Your task to perform on an android device: Open Google Chrome and open the bookmarks view Image 0: 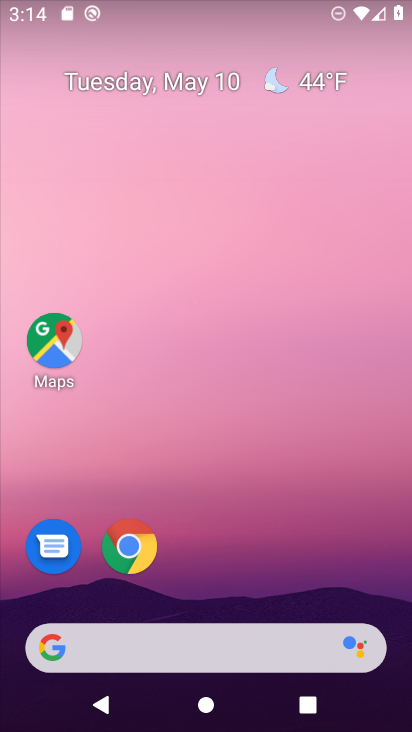
Step 0: drag from (272, 466) to (276, 123)
Your task to perform on an android device: Open Google Chrome and open the bookmarks view Image 1: 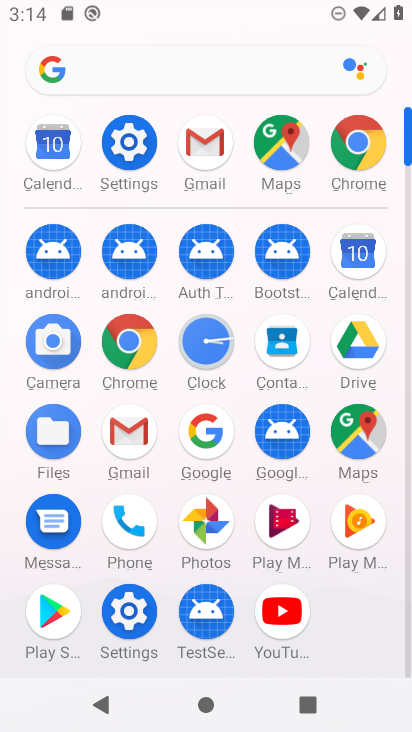
Step 1: click (367, 159)
Your task to perform on an android device: Open Google Chrome and open the bookmarks view Image 2: 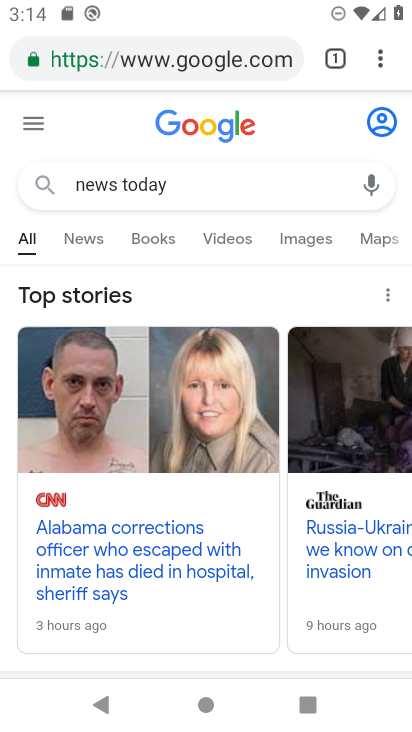
Step 2: click (385, 68)
Your task to perform on an android device: Open Google Chrome and open the bookmarks view Image 3: 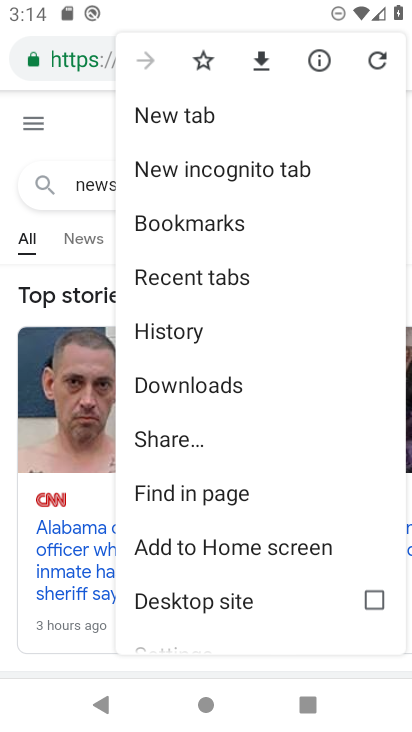
Step 3: click (231, 223)
Your task to perform on an android device: Open Google Chrome and open the bookmarks view Image 4: 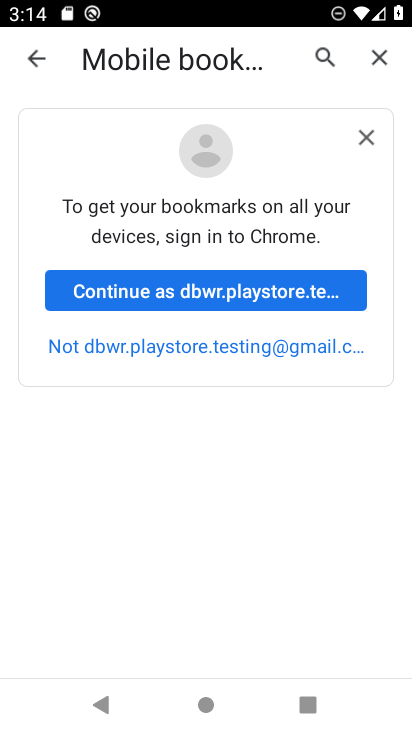
Step 4: task complete